Your task to perform on an android device: turn off sleep mode Image 0: 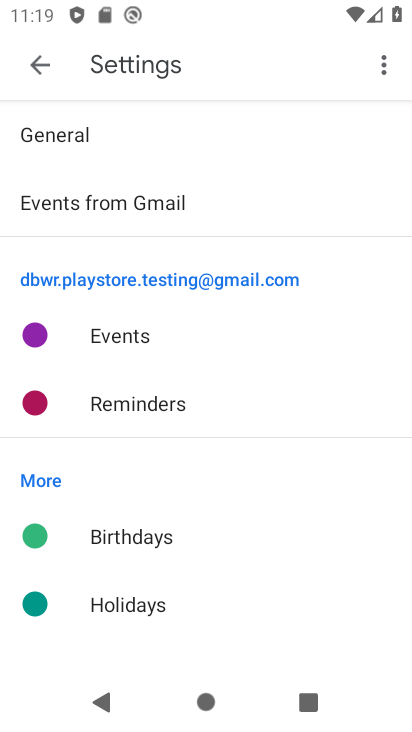
Step 0: press back button
Your task to perform on an android device: turn off sleep mode Image 1: 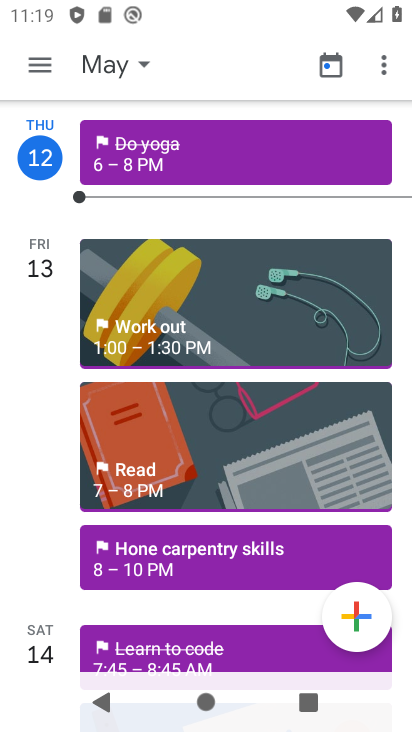
Step 1: press home button
Your task to perform on an android device: turn off sleep mode Image 2: 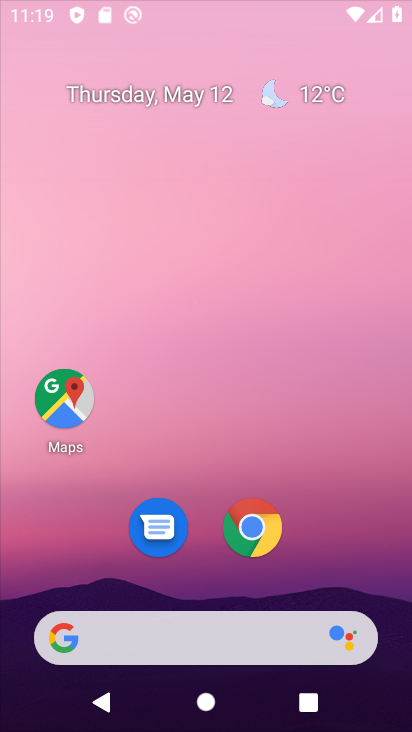
Step 2: drag from (26, 620) to (314, 161)
Your task to perform on an android device: turn off sleep mode Image 3: 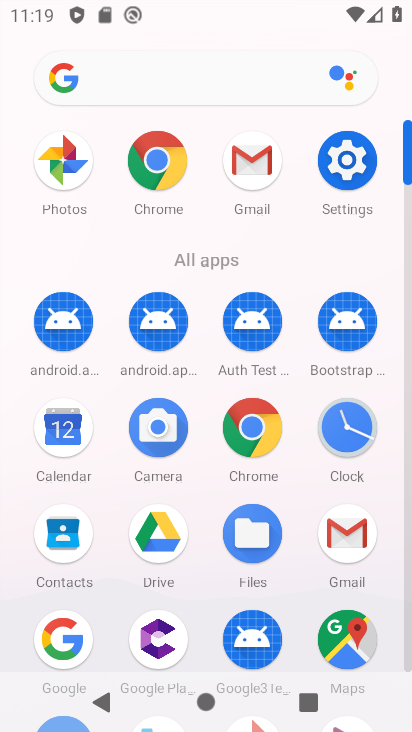
Step 3: click (343, 166)
Your task to perform on an android device: turn off sleep mode Image 4: 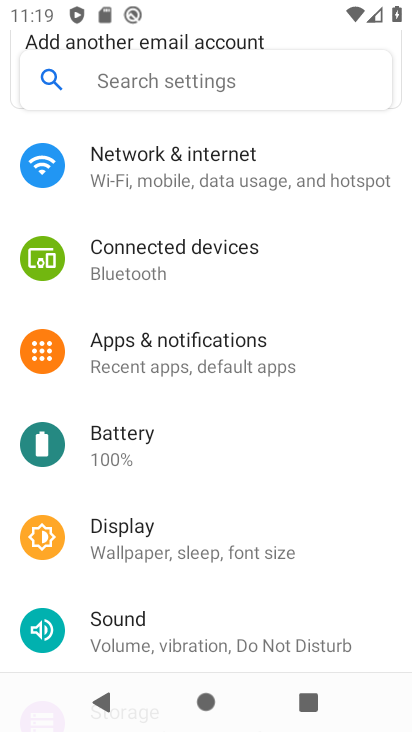
Step 4: drag from (127, 574) to (256, 235)
Your task to perform on an android device: turn off sleep mode Image 5: 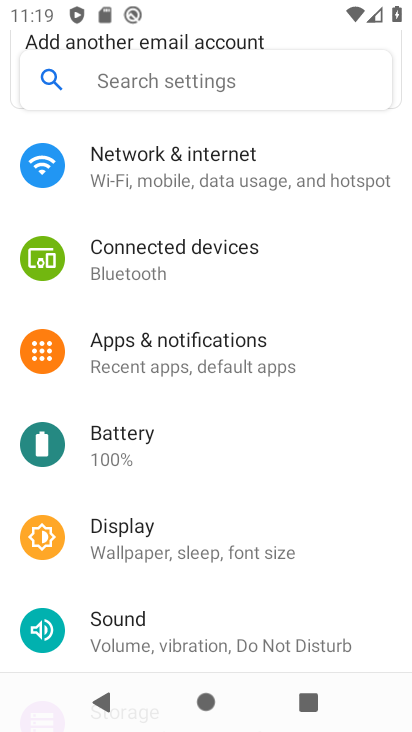
Step 5: click (154, 545)
Your task to perform on an android device: turn off sleep mode Image 6: 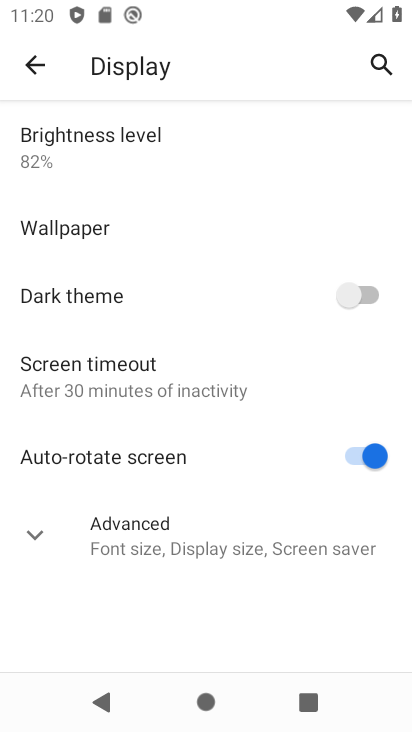
Step 6: task complete